Your task to perform on an android device: open chrome privacy settings Image 0: 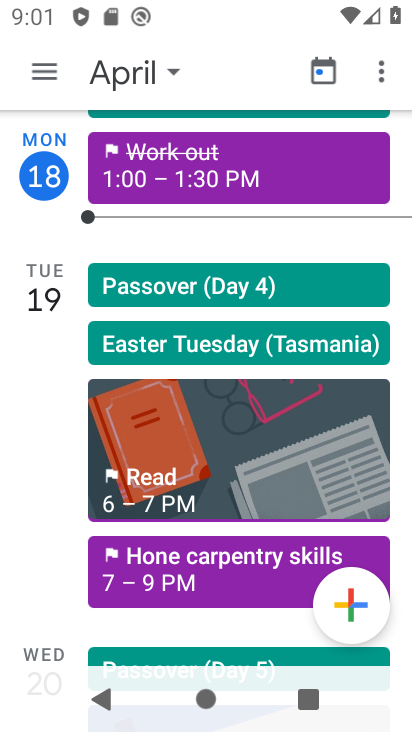
Step 0: press back button
Your task to perform on an android device: open chrome privacy settings Image 1: 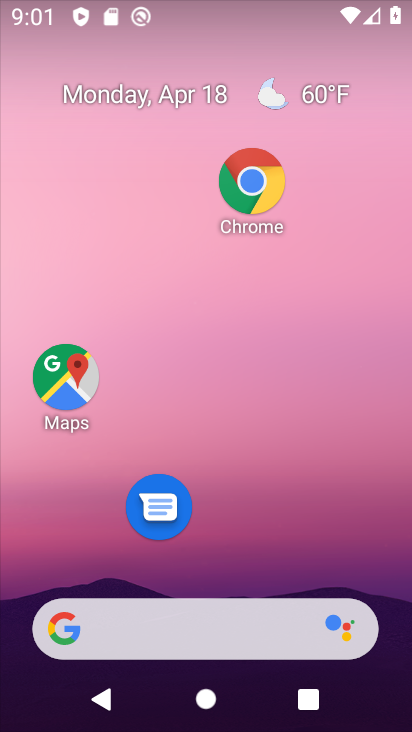
Step 1: click (252, 167)
Your task to perform on an android device: open chrome privacy settings Image 2: 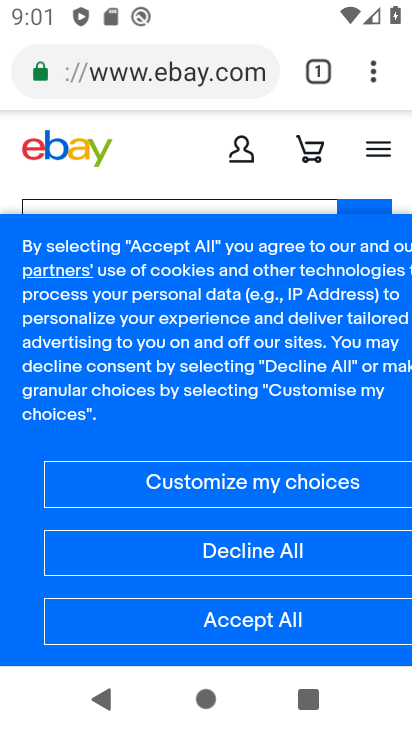
Step 2: drag from (374, 70) to (127, 509)
Your task to perform on an android device: open chrome privacy settings Image 3: 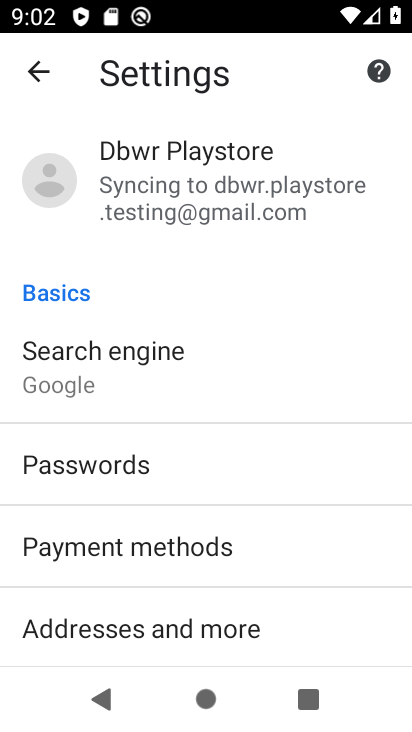
Step 3: drag from (122, 583) to (117, 126)
Your task to perform on an android device: open chrome privacy settings Image 4: 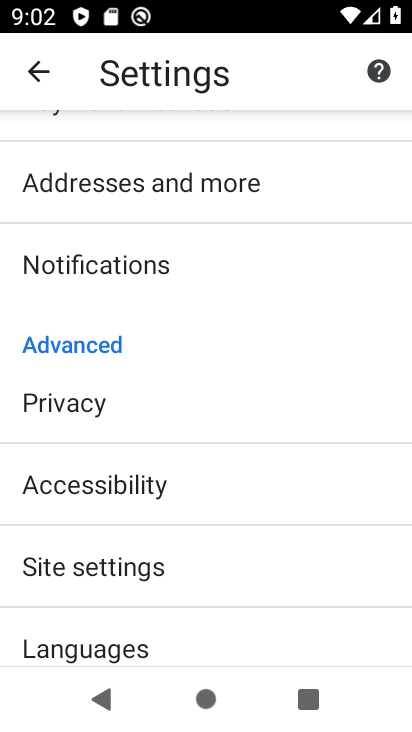
Step 4: click (114, 405)
Your task to perform on an android device: open chrome privacy settings Image 5: 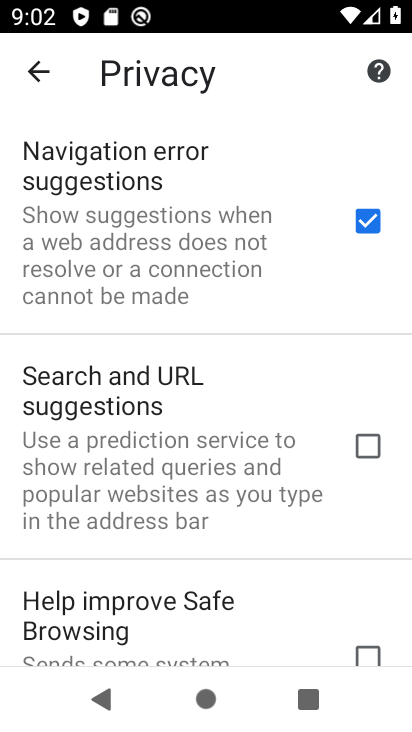
Step 5: task complete